Your task to perform on an android device: Show me recent news Image 0: 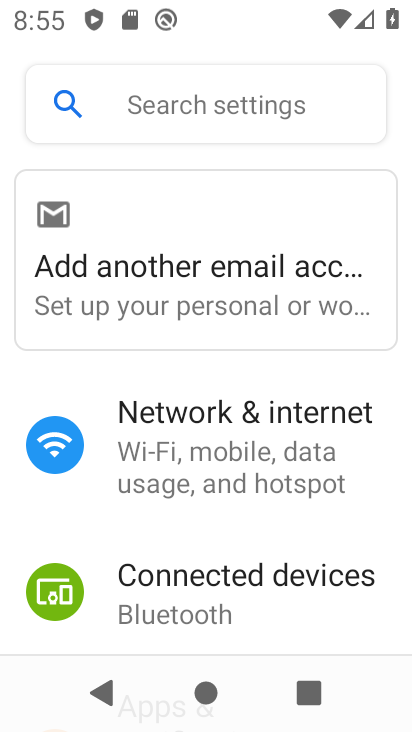
Step 0: press home button
Your task to perform on an android device: Show me recent news Image 1: 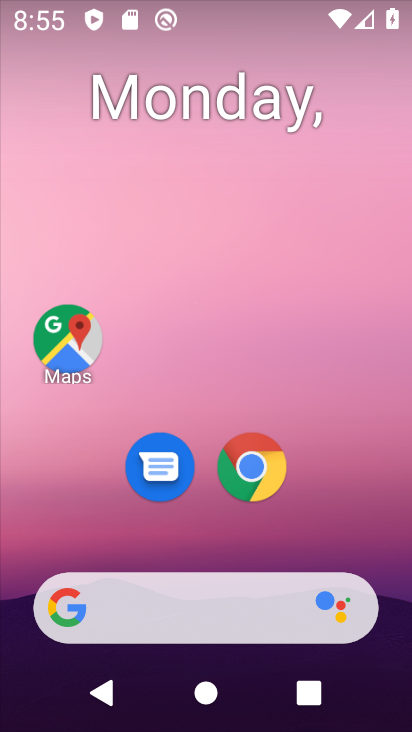
Step 1: click (189, 614)
Your task to perform on an android device: Show me recent news Image 2: 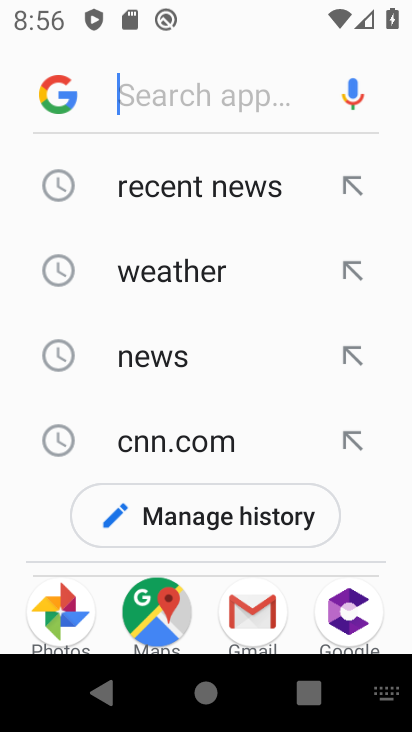
Step 2: click (236, 198)
Your task to perform on an android device: Show me recent news Image 3: 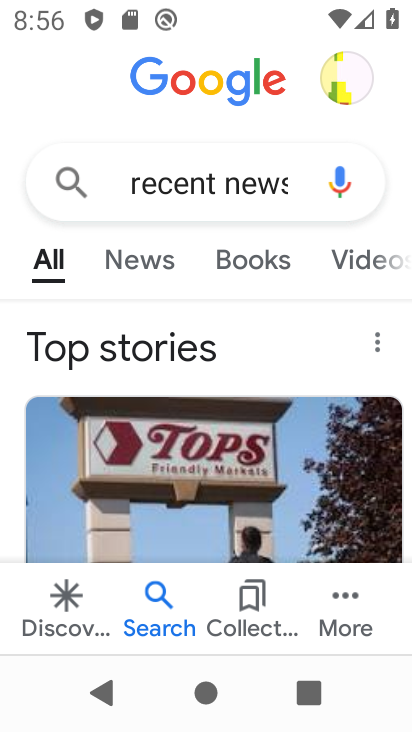
Step 3: task complete